Your task to perform on an android device: Go to Amazon Image 0: 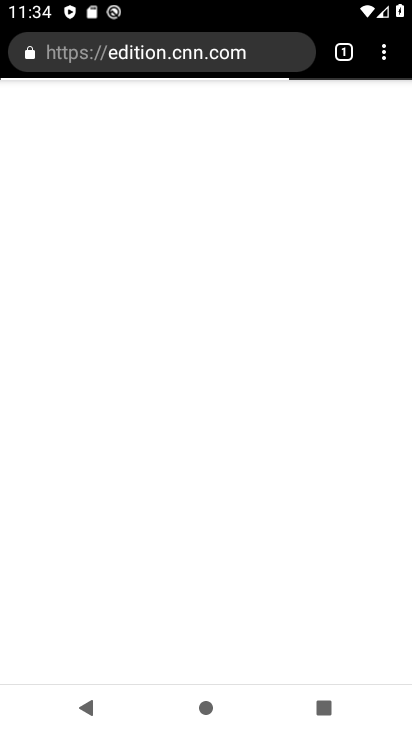
Step 0: click (385, 56)
Your task to perform on an android device: Go to Amazon Image 1: 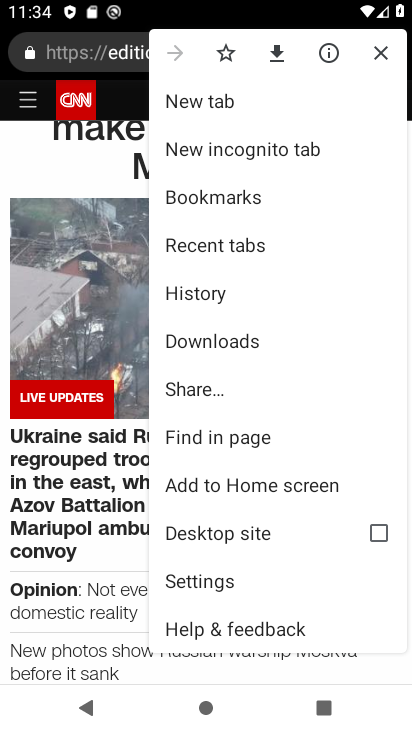
Step 1: click (195, 100)
Your task to perform on an android device: Go to Amazon Image 2: 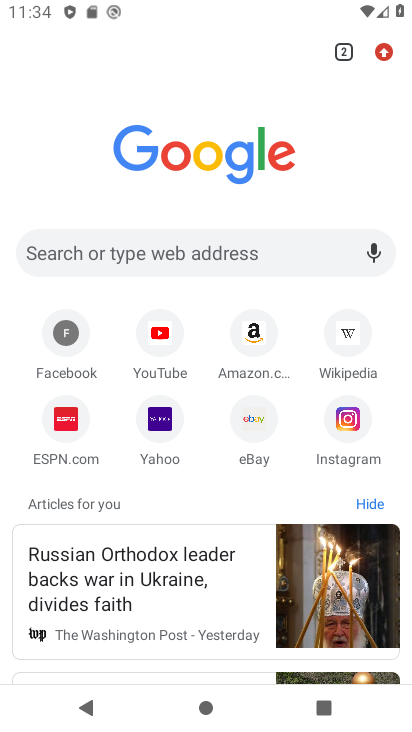
Step 2: click (251, 336)
Your task to perform on an android device: Go to Amazon Image 3: 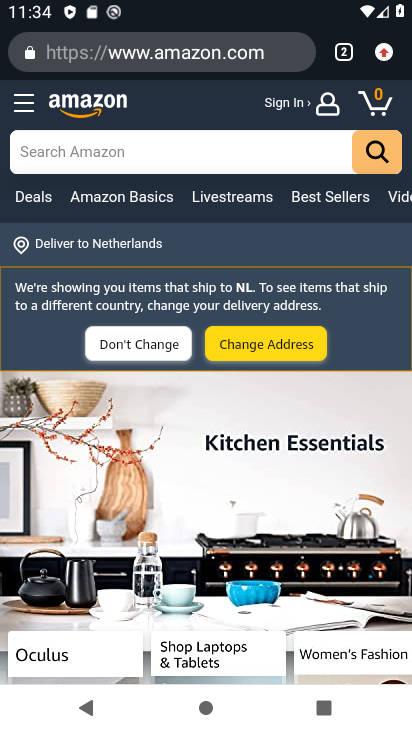
Step 3: task complete